Your task to perform on an android device: star an email in the gmail app Image 0: 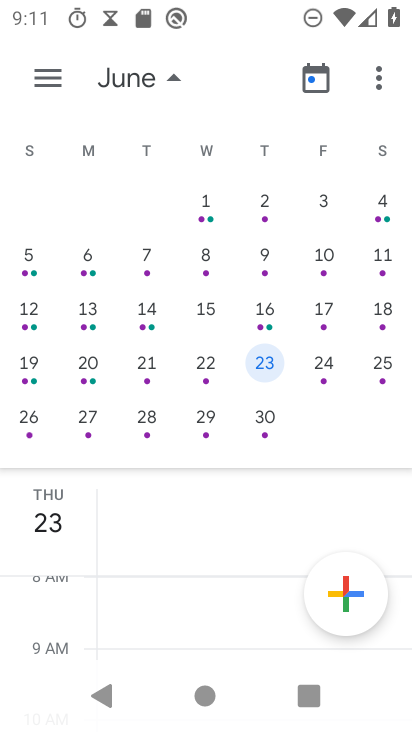
Step 0: press home button
Your task to perform on an android device: star an email in the gmail app Image 1: 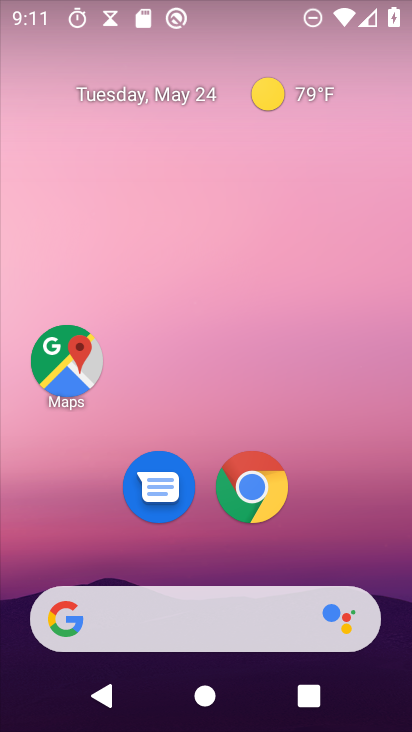
Step 1: drag from (39, 519) to (251, 153)
Your task to perform on an android device: star an email in the gmail app Image 2: 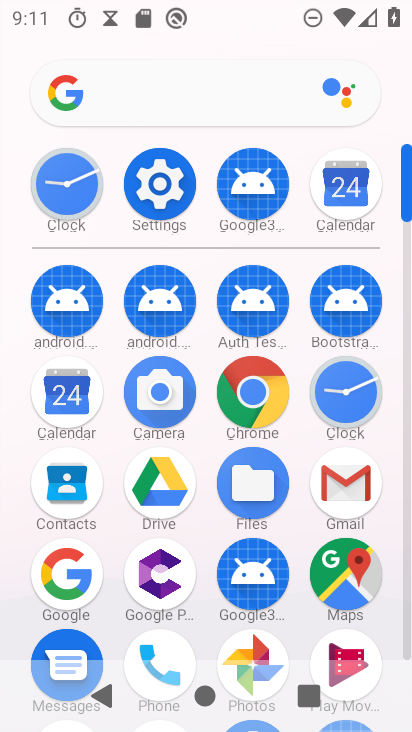
Step 2: click (349, 497)
Your task to perform on an android device: star an email in the gmail app Image 3: 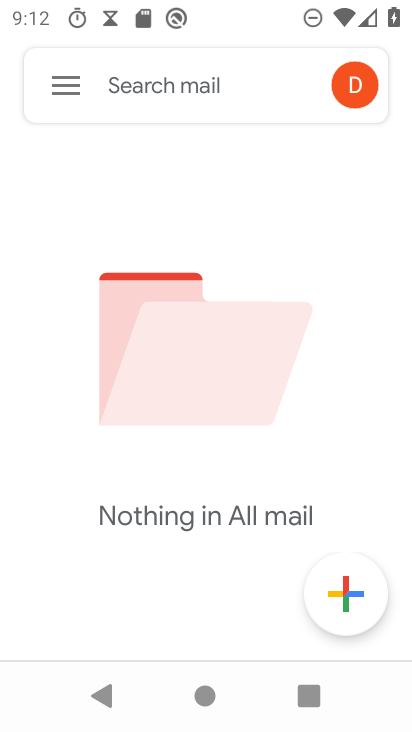
Step 3: click (70, 94)
Your task to perform on an android device: star an email in the gmail app Image 4: 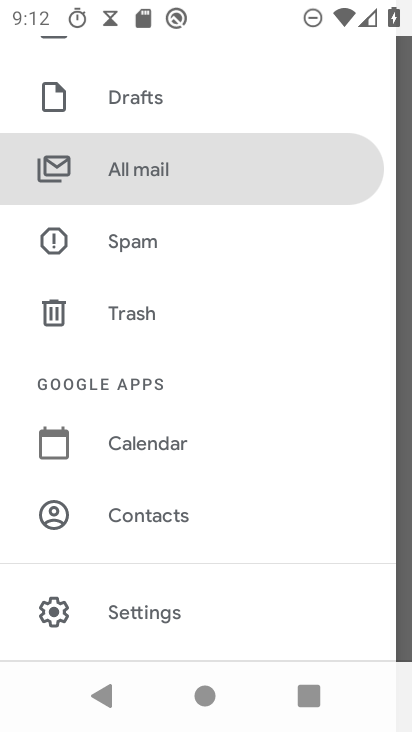
Step 4: click (139, 167)
Your task to perform on an android device: star an email in the gmail app Image 5: 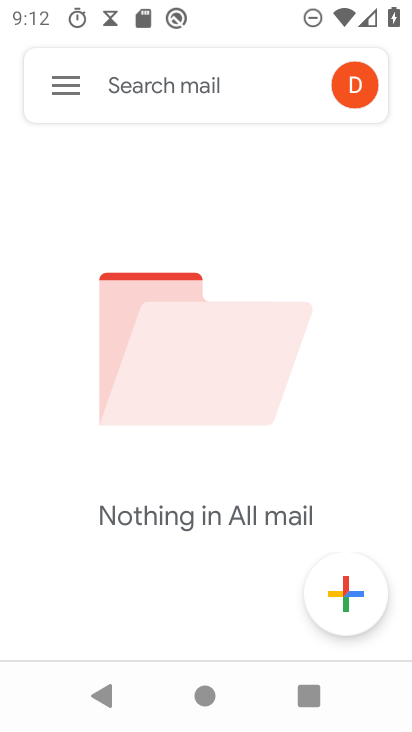
Step 5: task complete